Your task to perform on an android device: see sites visited before in the chrome app Image 0: 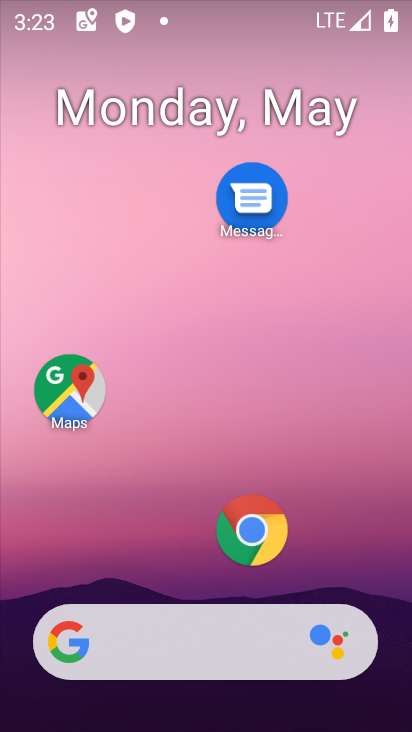
Step 0: click (260, 523)
Your task to perform on an android device: see sites visited before in the chrome app Image 1: 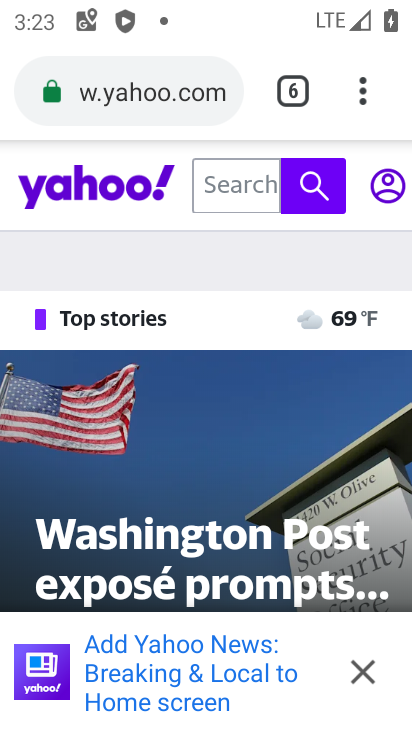
Step 1: task complete